Your task to perform on an android device: Go to Yahoo.com Image 0: 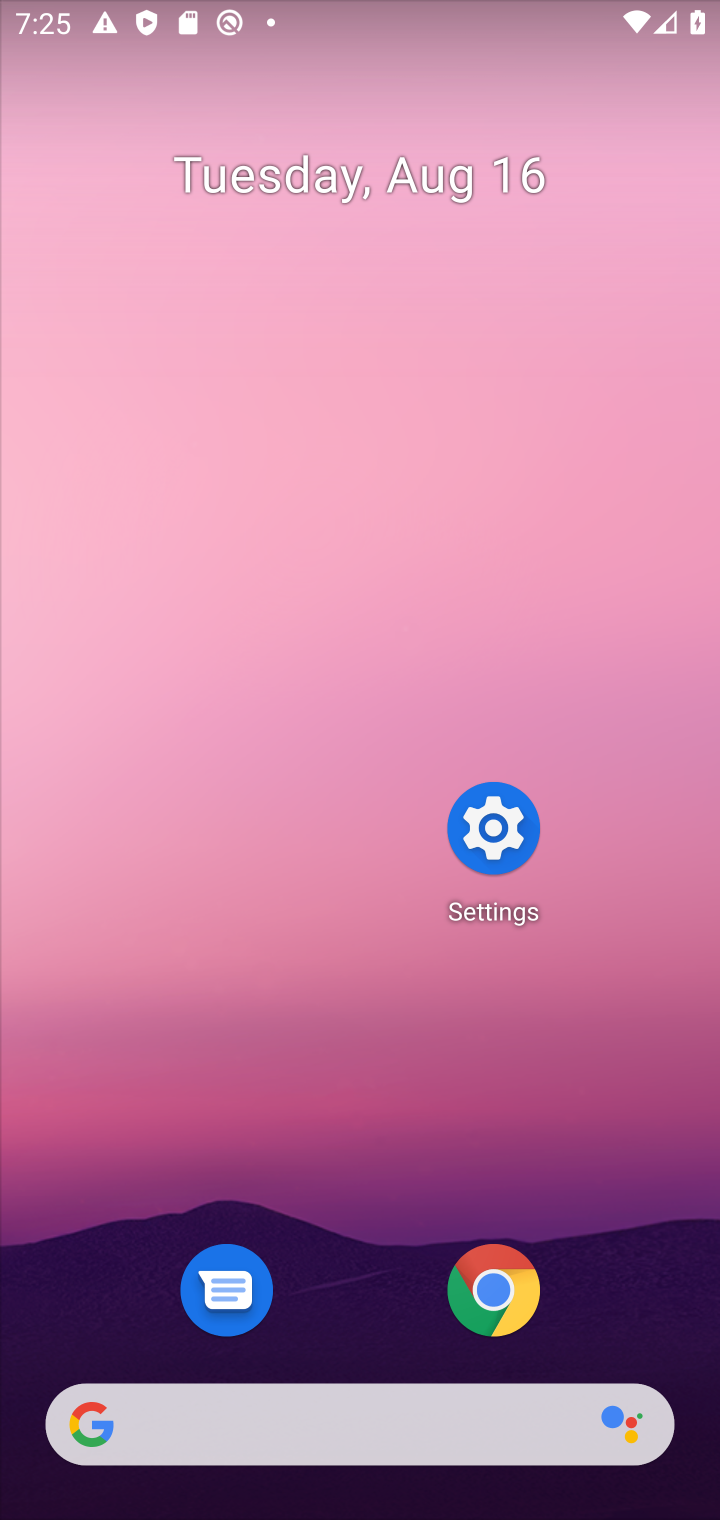
Step 0: click (486, 1308)
Your task to perform on an android device: Go to Yahoo.com Image 1: 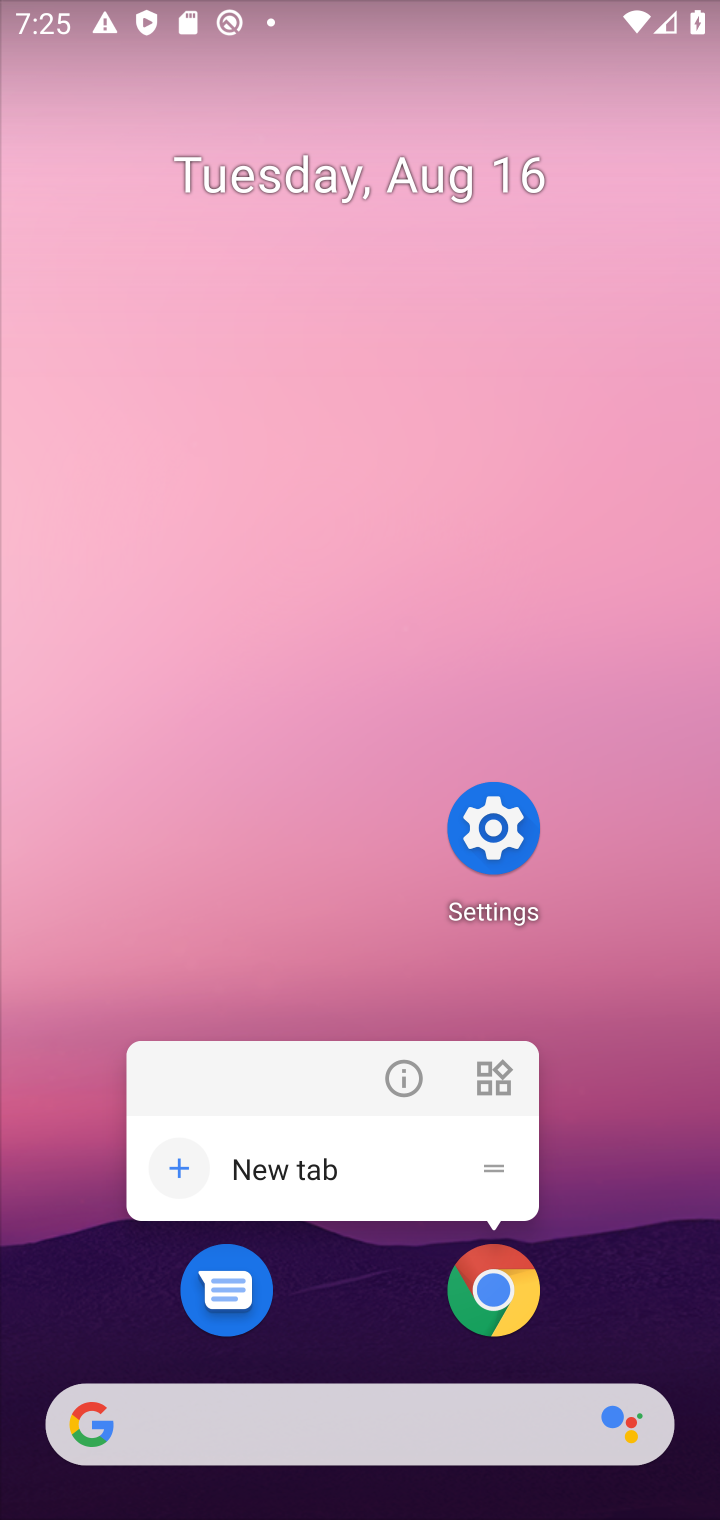
Step 1: click (488, 1297)
Your task to perform on an android device: Go to Yahoo.com Image 2: 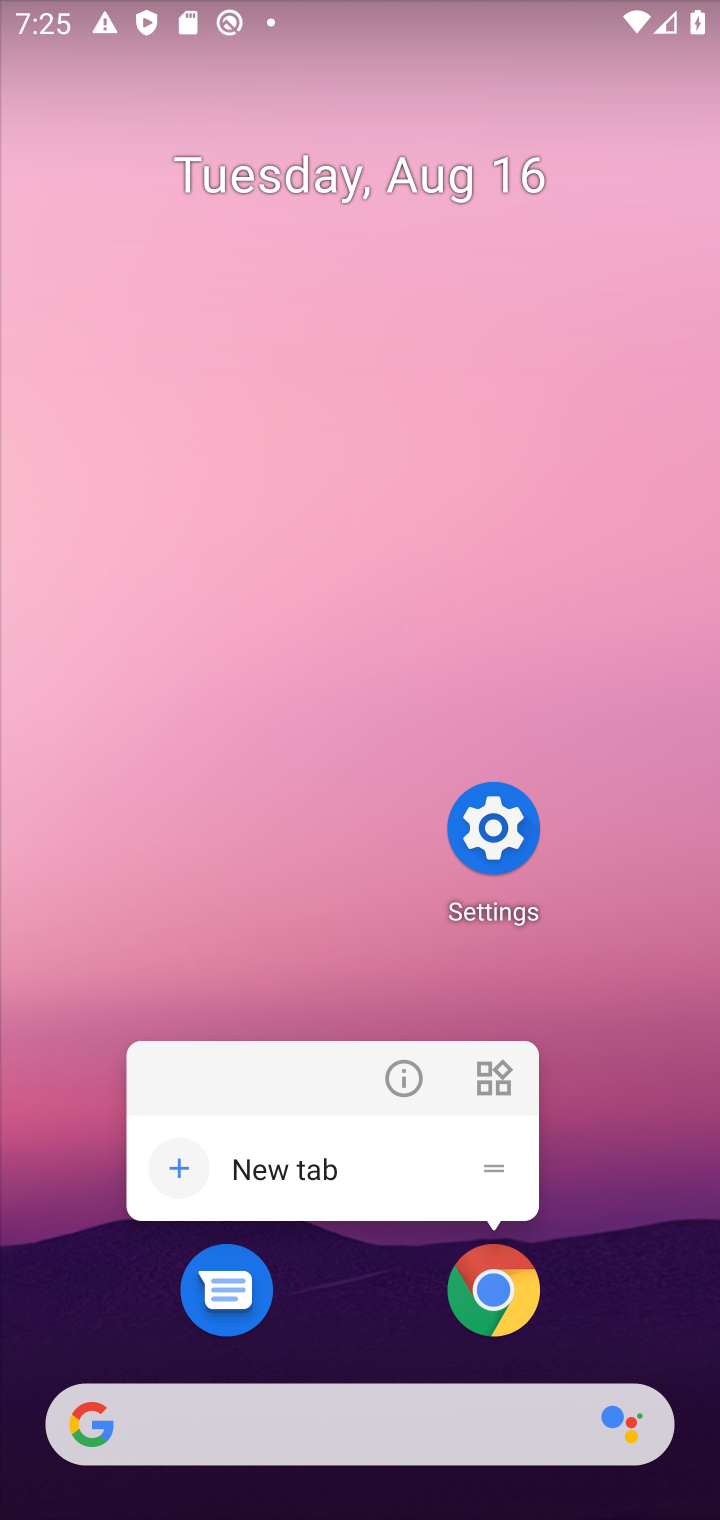
Step 2: click (497, 1284)
Your task to perform on an android device: Go to Yahoo.com Image 3: 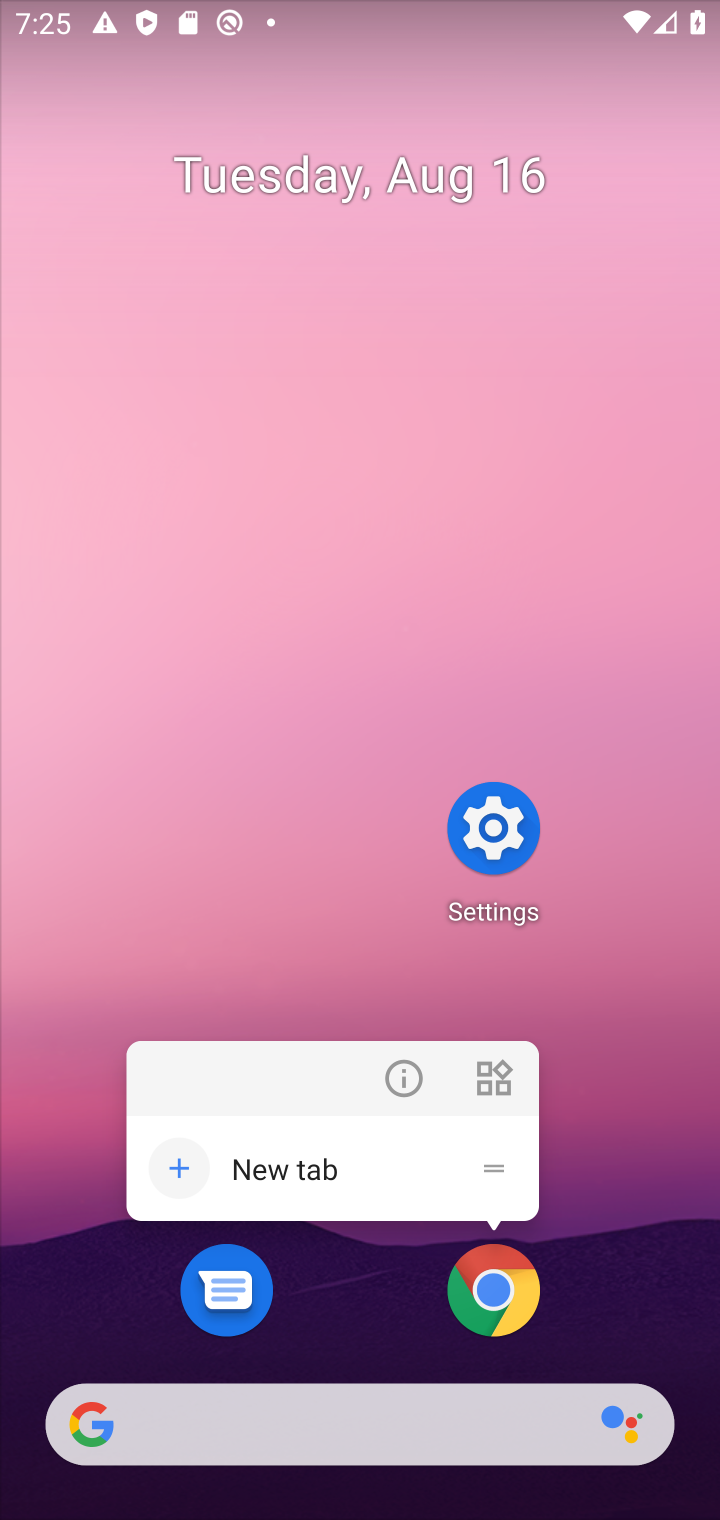
Step 3: click (479, 1312)
Your task to perform on an android device: Go to Yahoo.com Image 4: 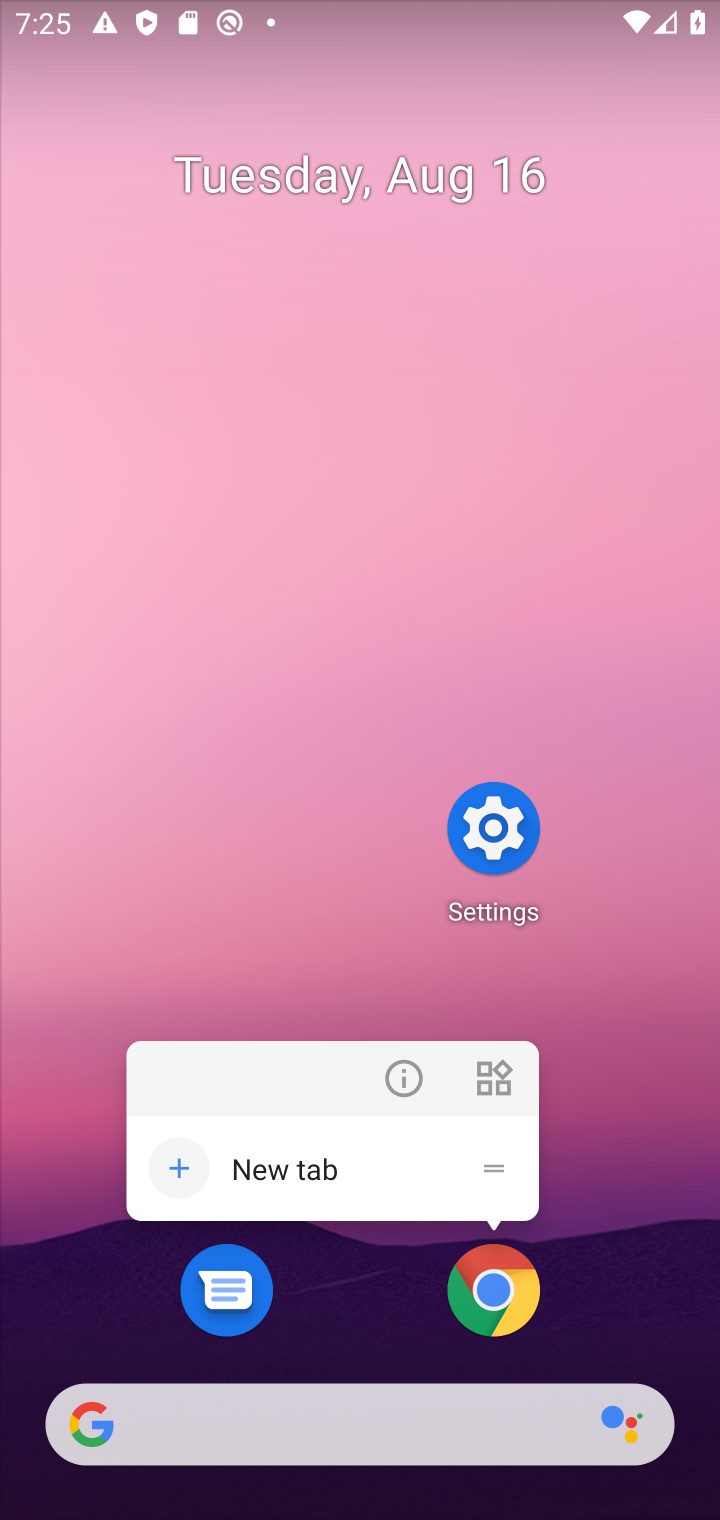
Step 4: click (507, 1301)
Your task to perform on an android device: Go to Yahoo.com Image 5: 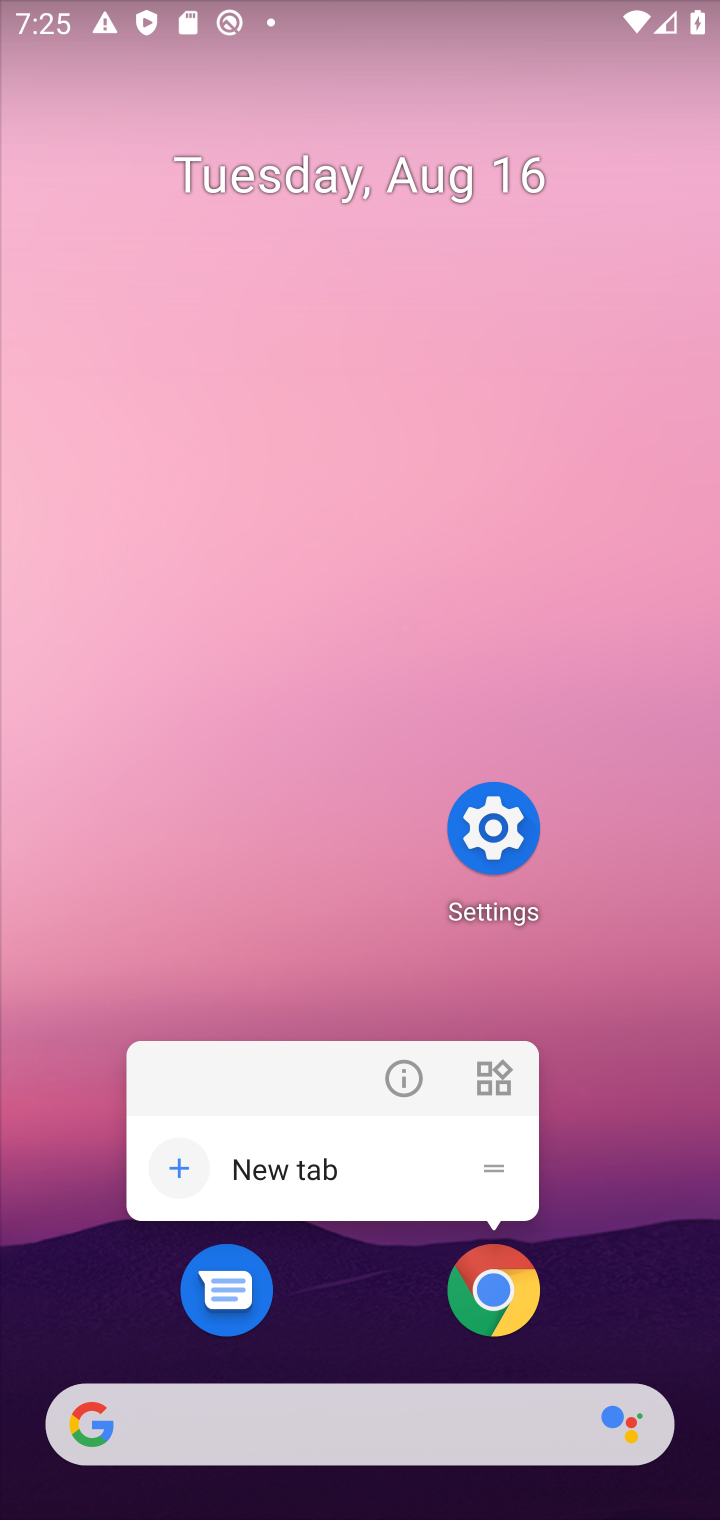
Step 5: click (496, 1293)
Your task to perform on an android device: Go to Yahoo.com Image 6: 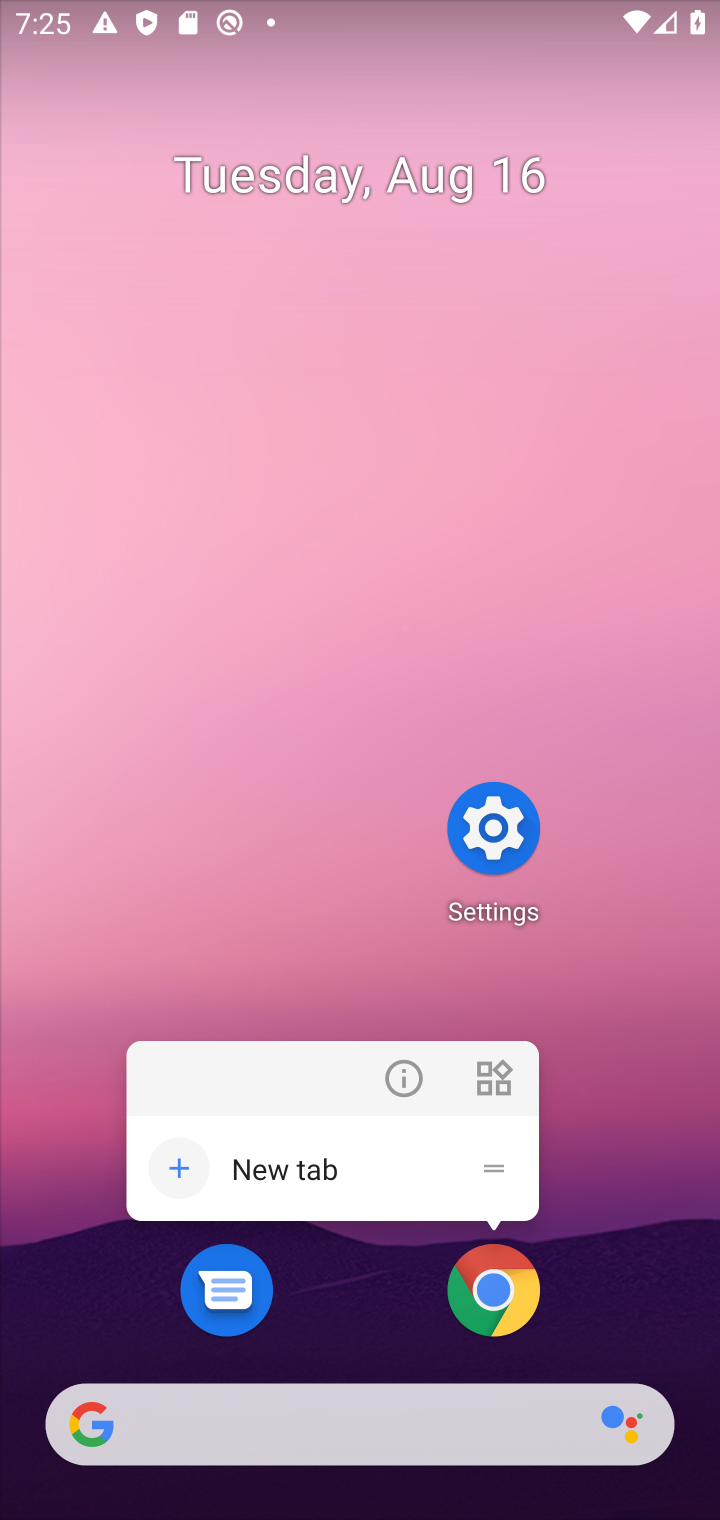
Step 6: click (488, 1293)
Your task to perform on an android device: Go to Yahoo.com Image 7: 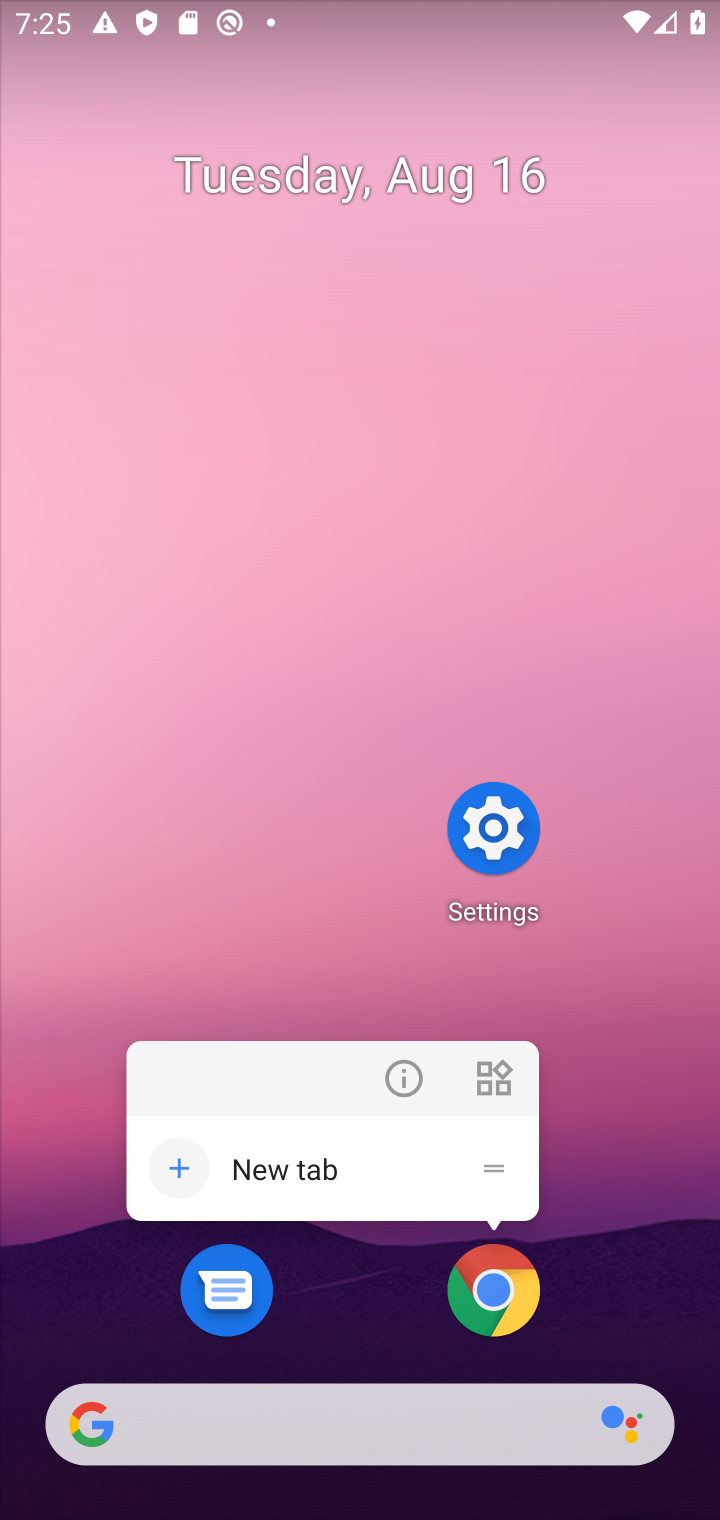
Step 7: click (488, 1293)
Your task to perform on an android device: Go to Yahoo.com Image 8: 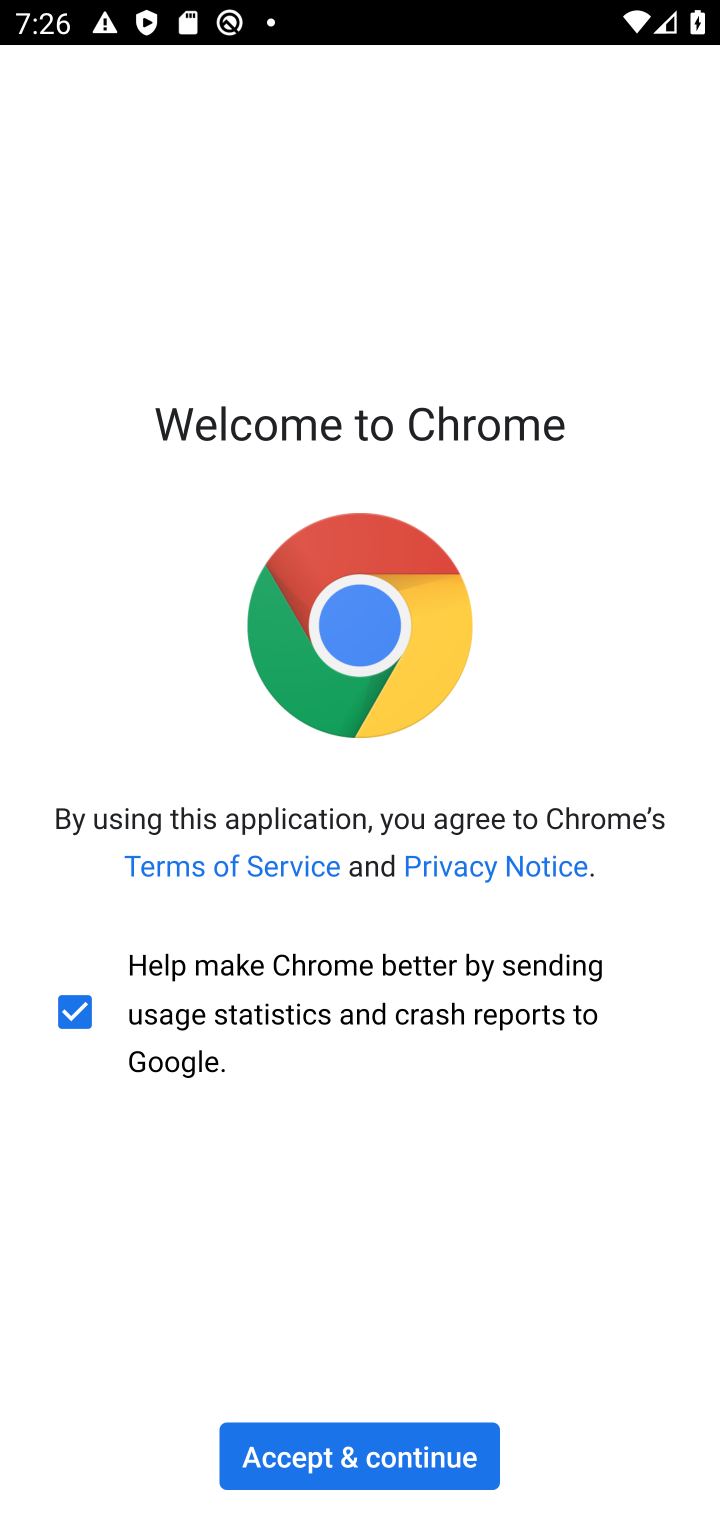
Step 8: click (394, 1459)
Your task to perform on an android device: Go to Yahoo.com Image 9: 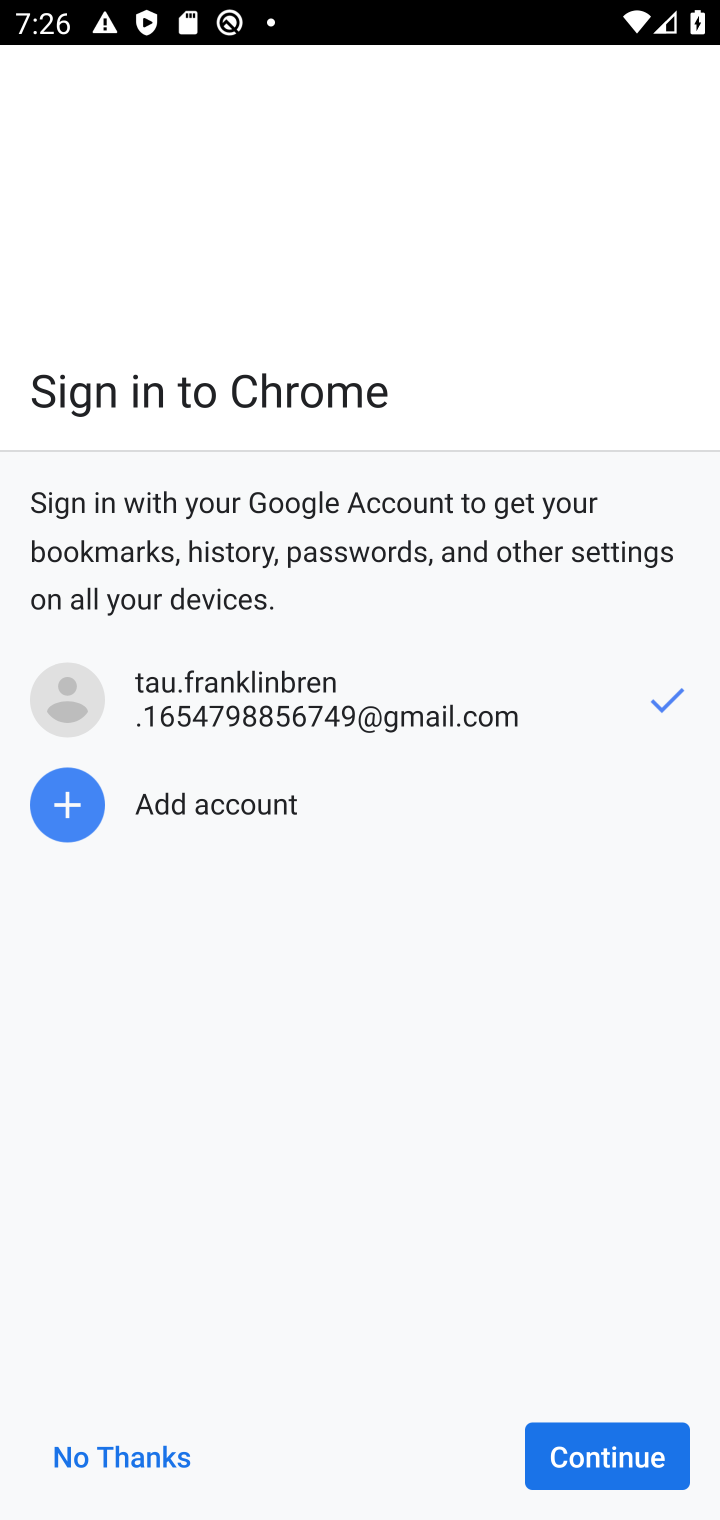
Step 9: click (621, 1466)
Your task to perform on an android device: Go to Yahoo.com Image 10: 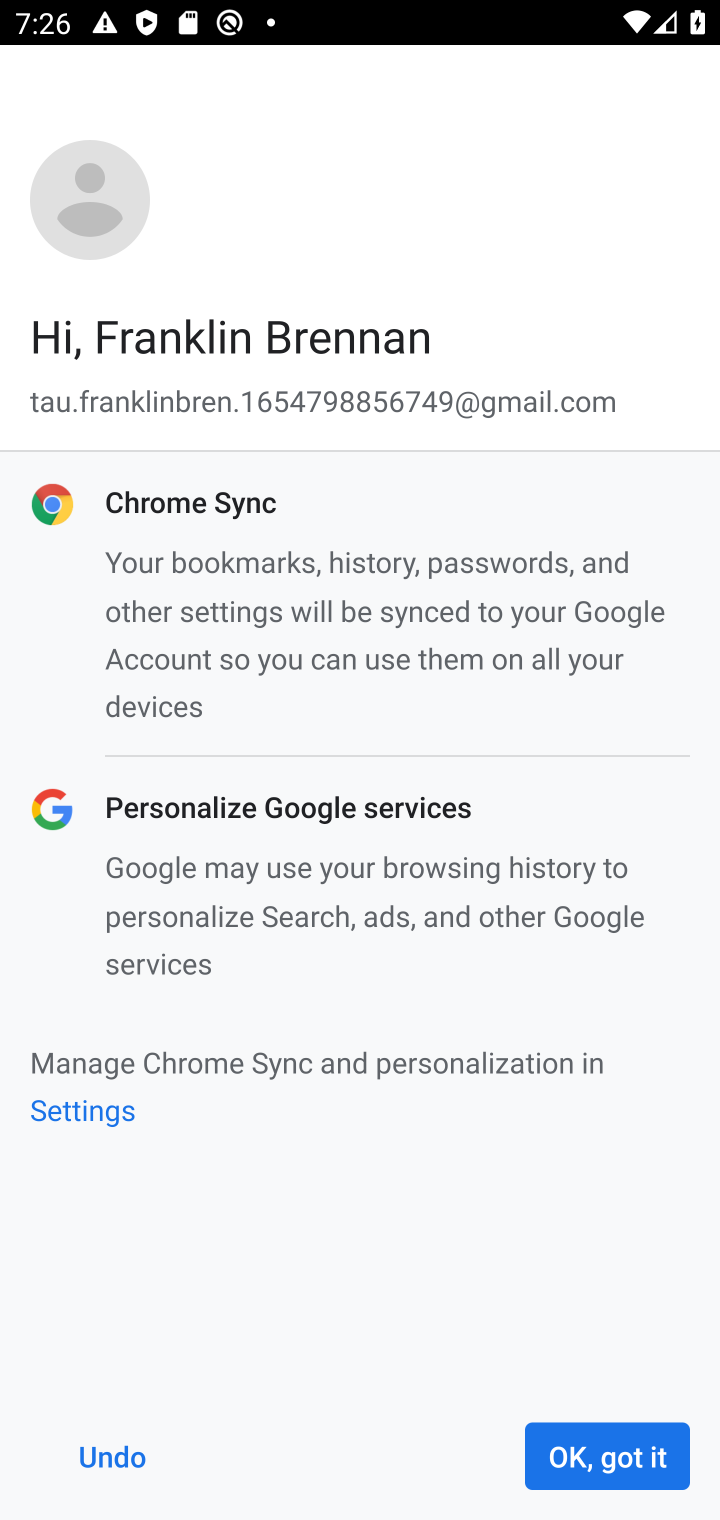
Step 10: click (621, 1466)
Your task to perform on an android device: Go to Yahoo.com Image 11: 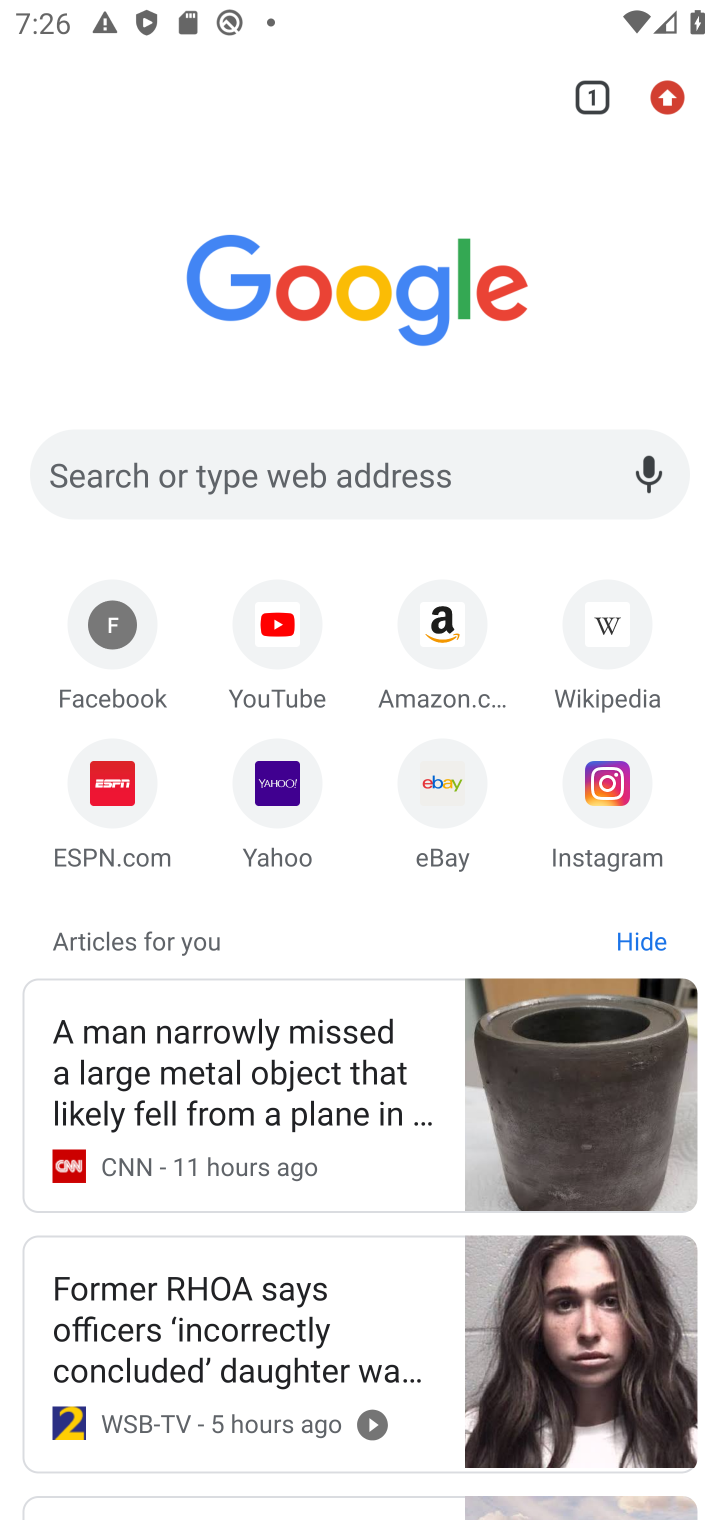
Step 11: click (274, 794)
Your task to perform on an android device: Go to Yahoo.com Image 12: 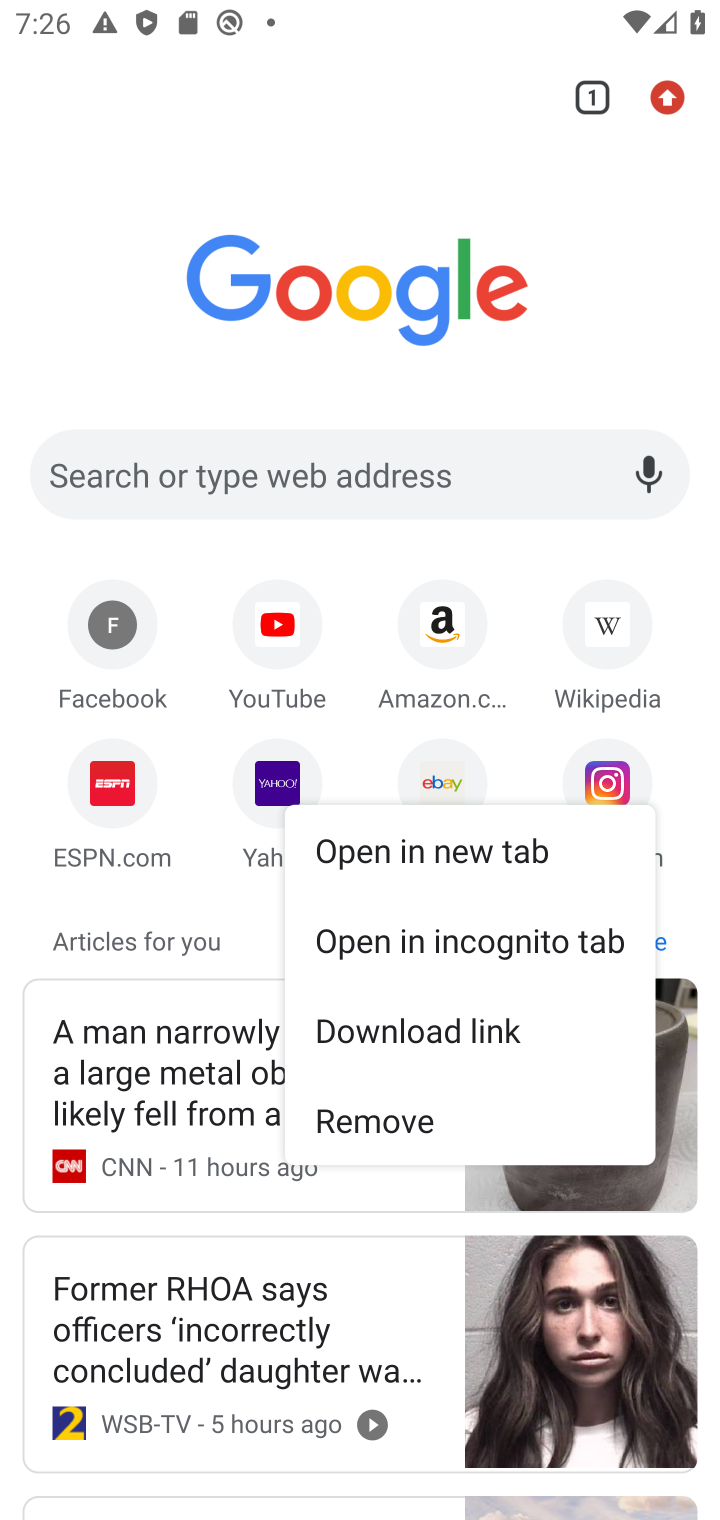
Step 12: click (272, 775)
Your task to perform on an android device: Go to Yahoo.com Image 13: 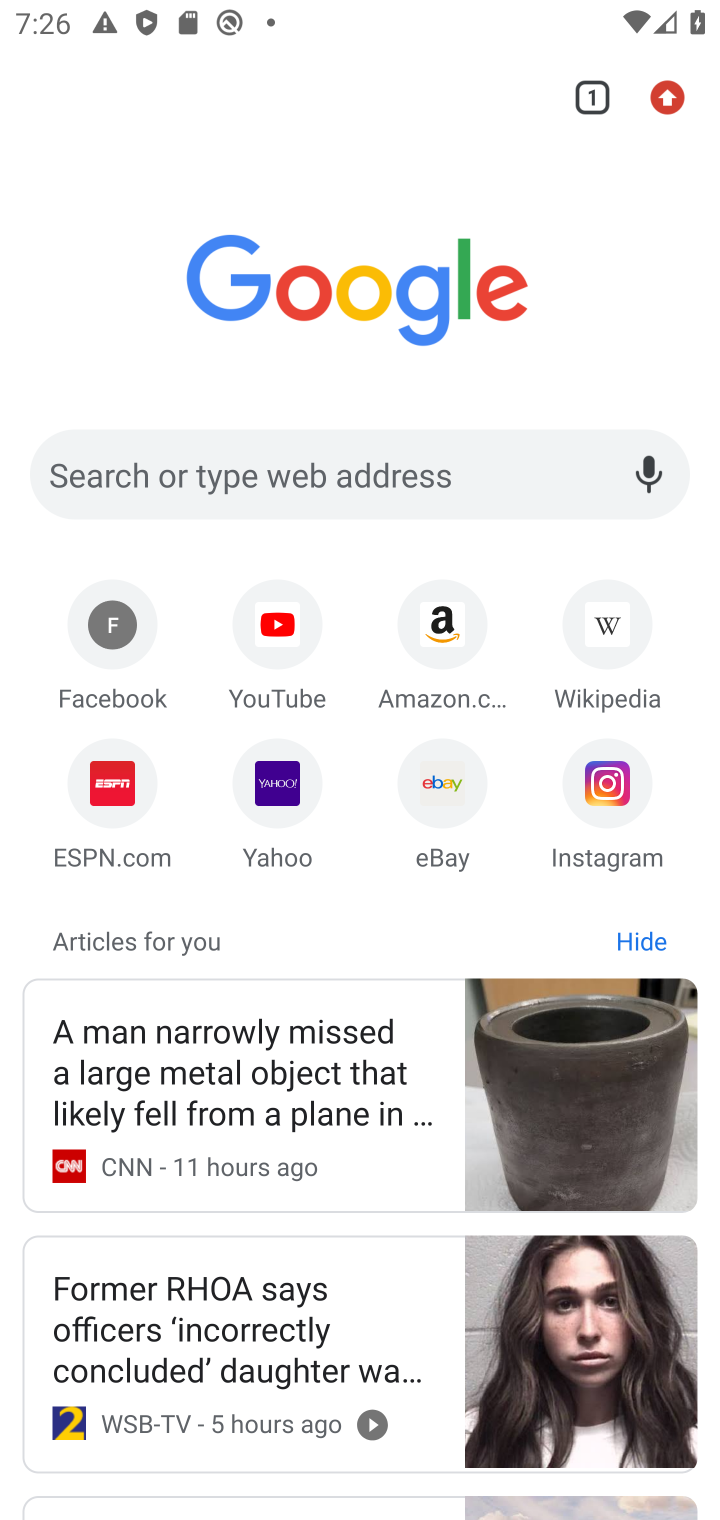
Step 13: click (270, 787)
Your task to perform on an android device: Go to Yahoo.com Image 14: 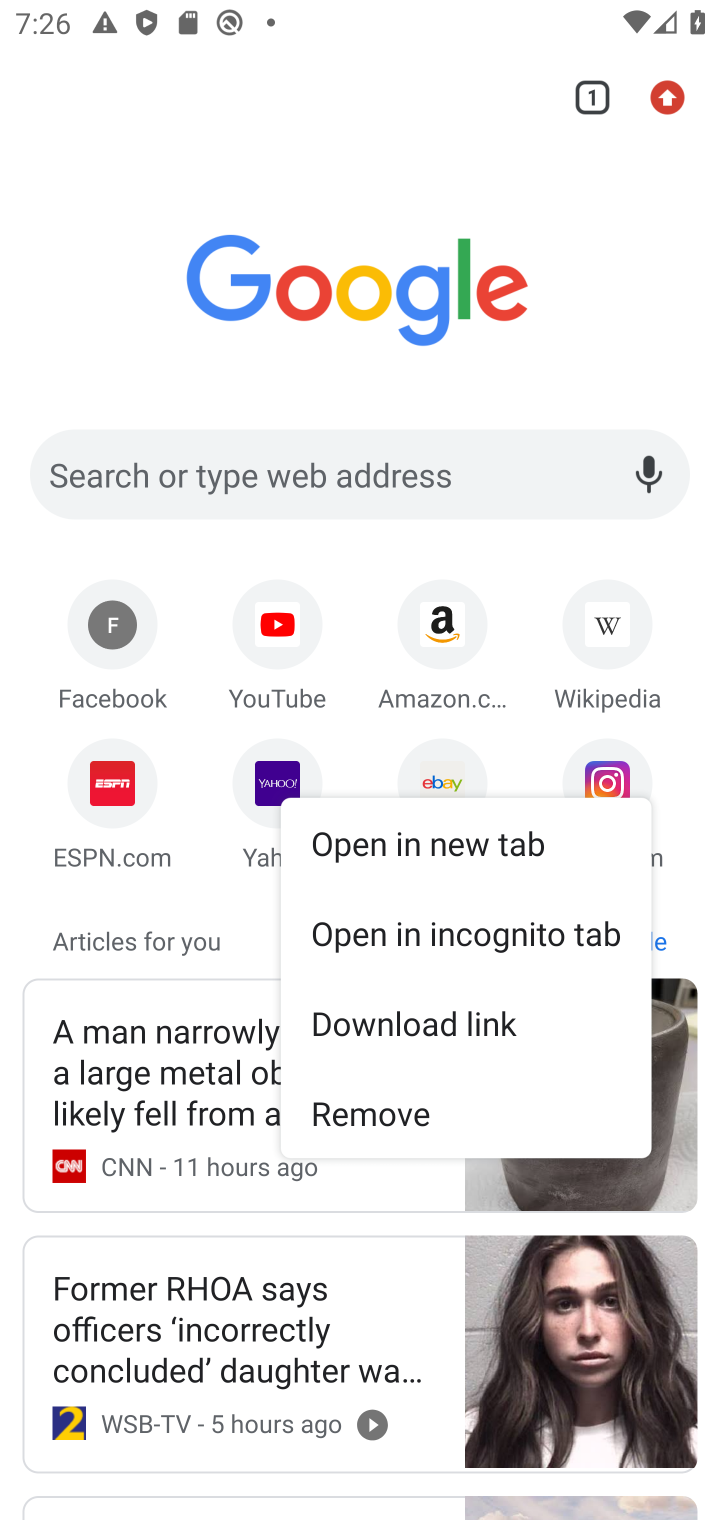
Step 14: click (276, 783)
Your task to perform on an android device: Go to Yahoo.com Image 15: 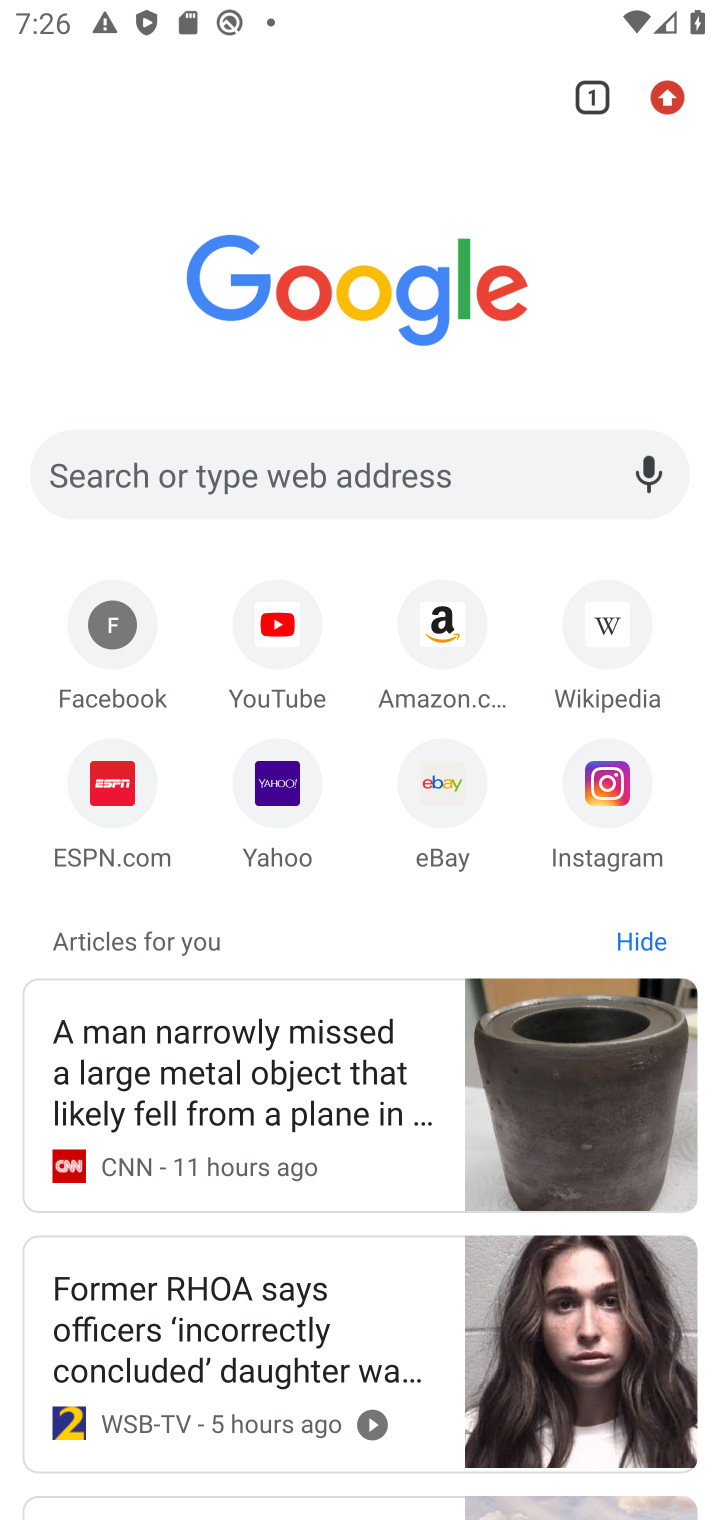
Step 15: click (276, 783)
Your task to perform on an android device: Go to Yahoo.com Image 16: 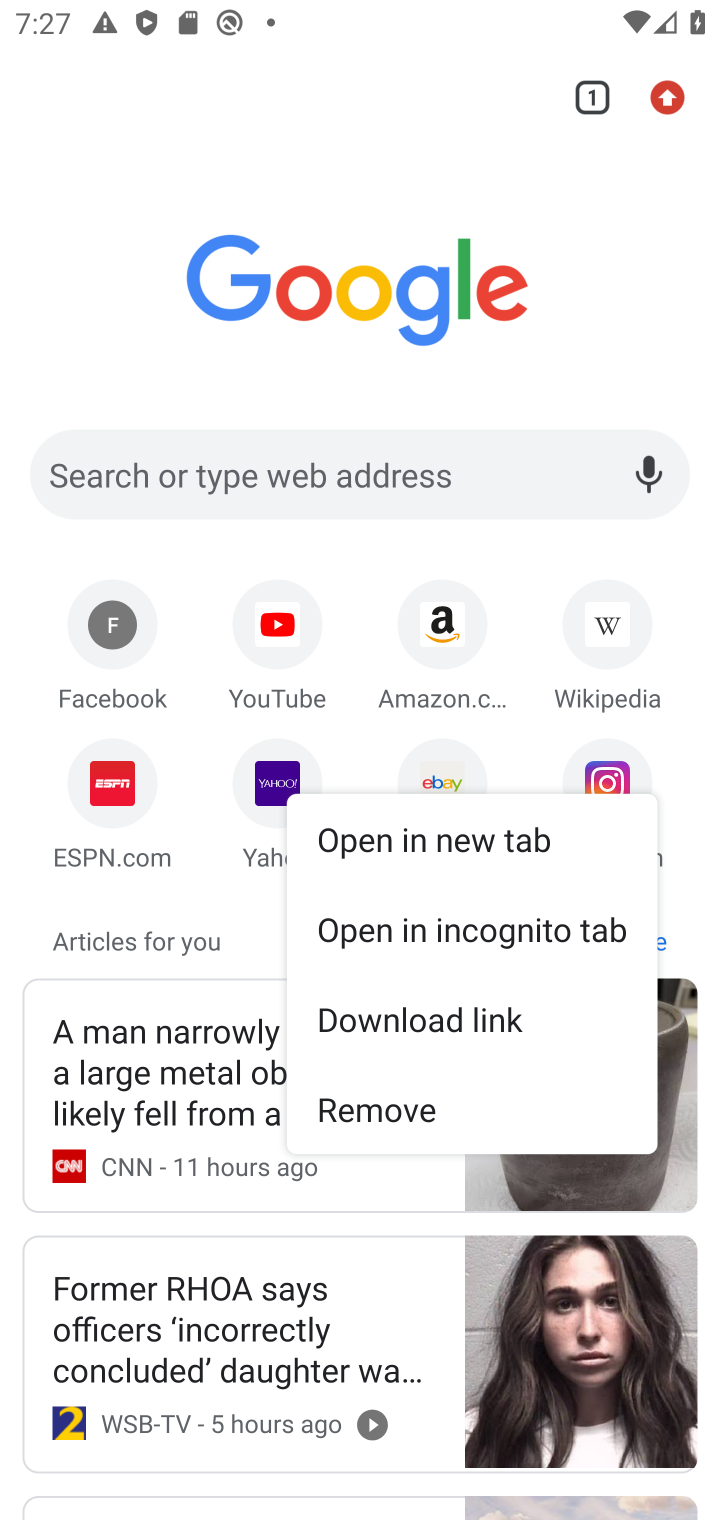
Step 16: click (265, 785)
Your task to perform on an android device: Go to Yahoo.com Image 17: 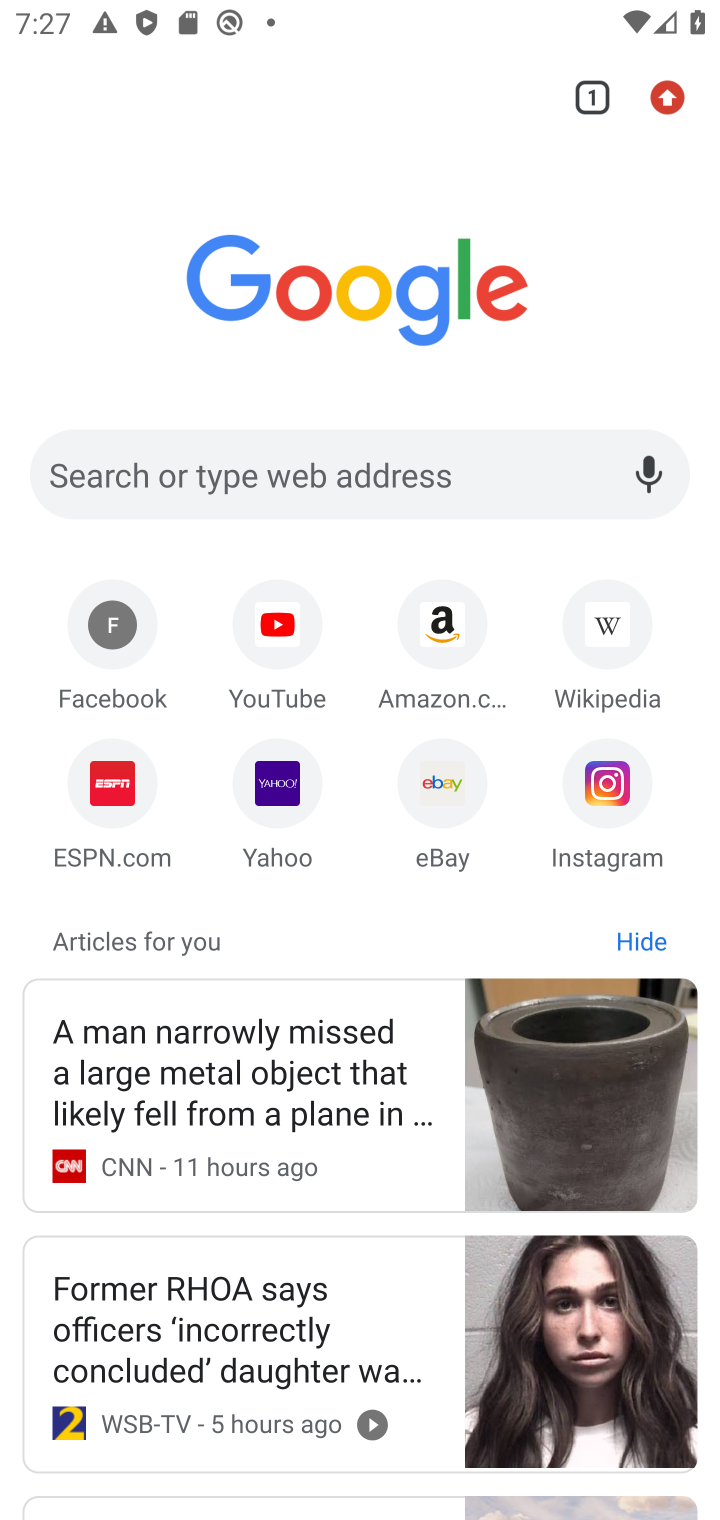
Step 17: click (265, 785)
Your task to perform on an android device: Go to Yahoo.com Image 18: 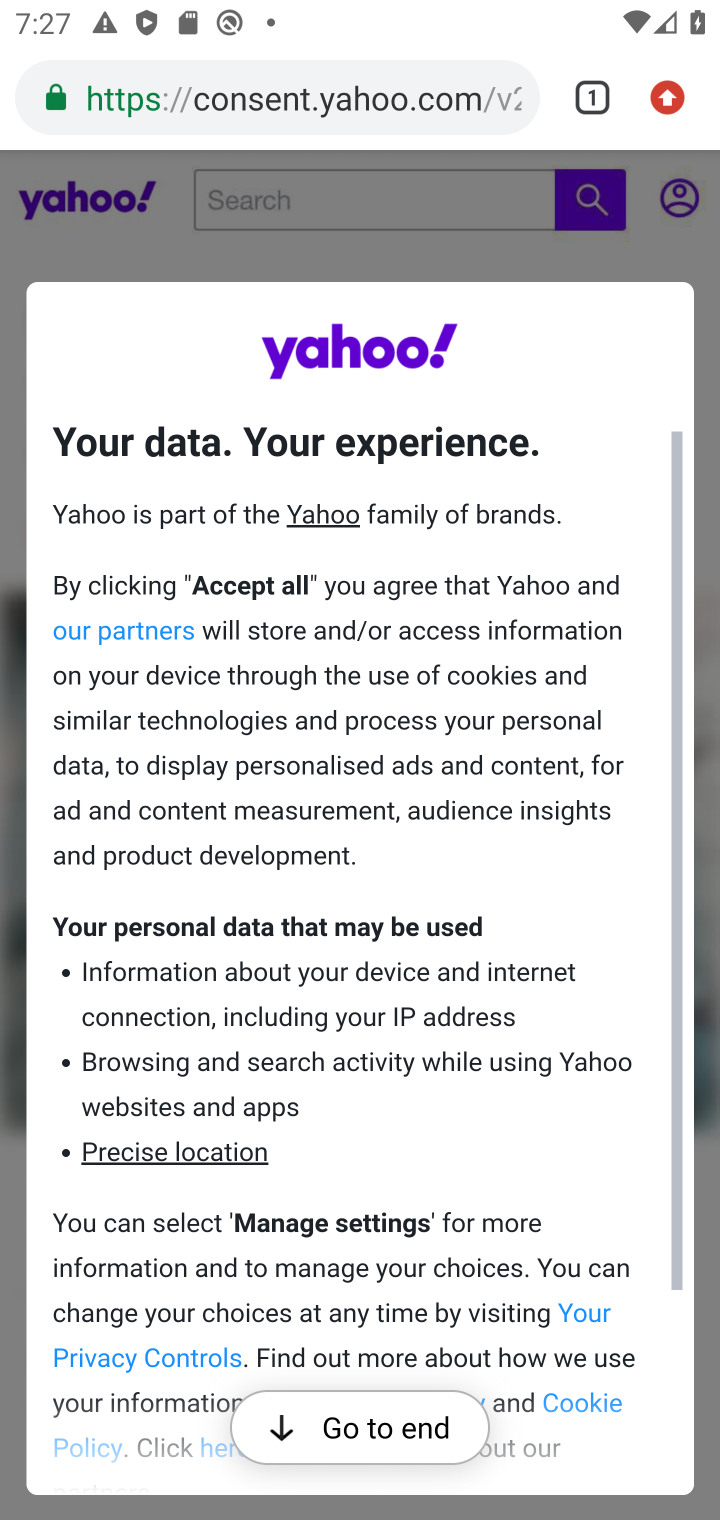
Step 18: click (377, 1424)
Your task to perform on an android device: Go to Yahoo.com Image 19: 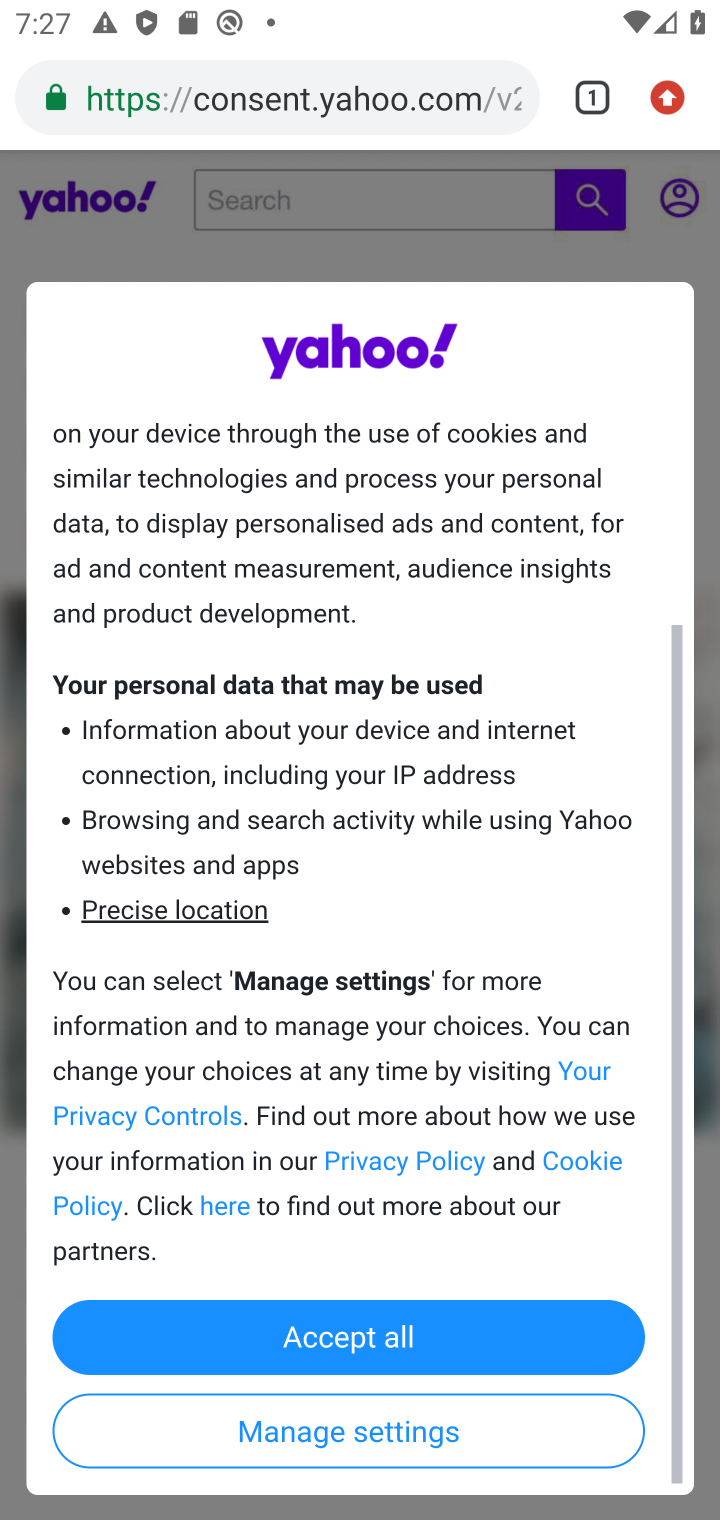
Step 19: click (353, 1334)
Your task to perform on an android device: Go to Yahoo.com Image 20: 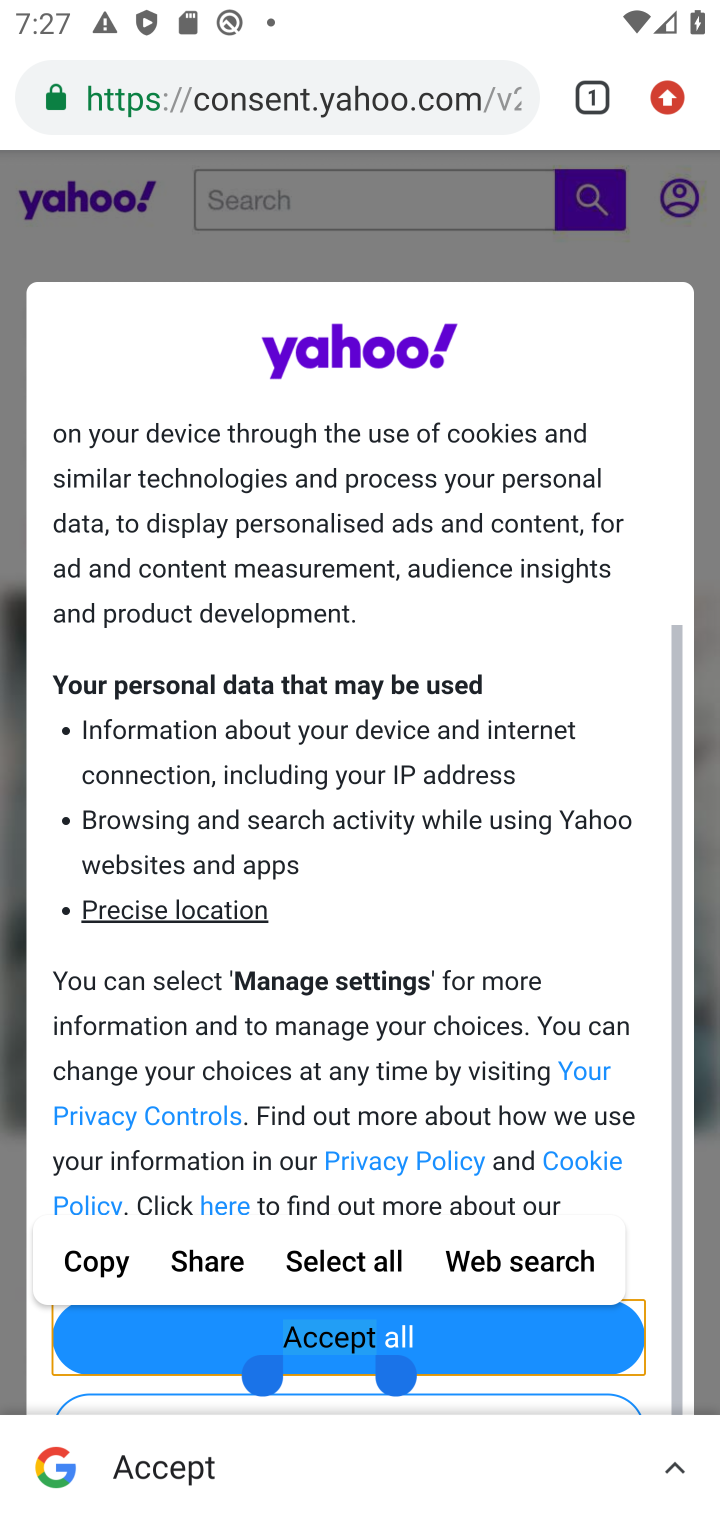
Step 20: click (339, 1348)
Your task to perform on an android device: Go to Yahoo.com Image 21: 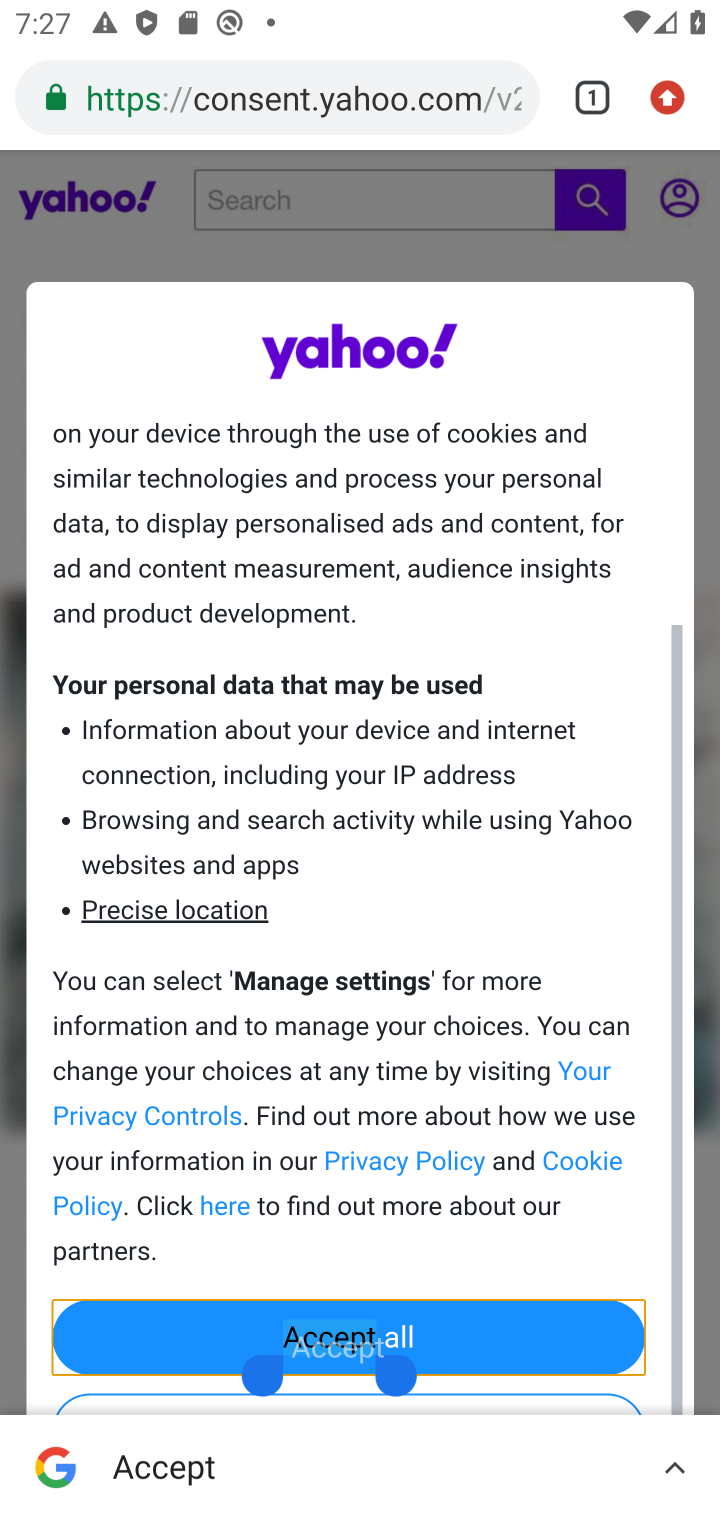
Step 21: click (424, 1332)
Your task to perform on an android device: Go to Yahoo.com Image 22: 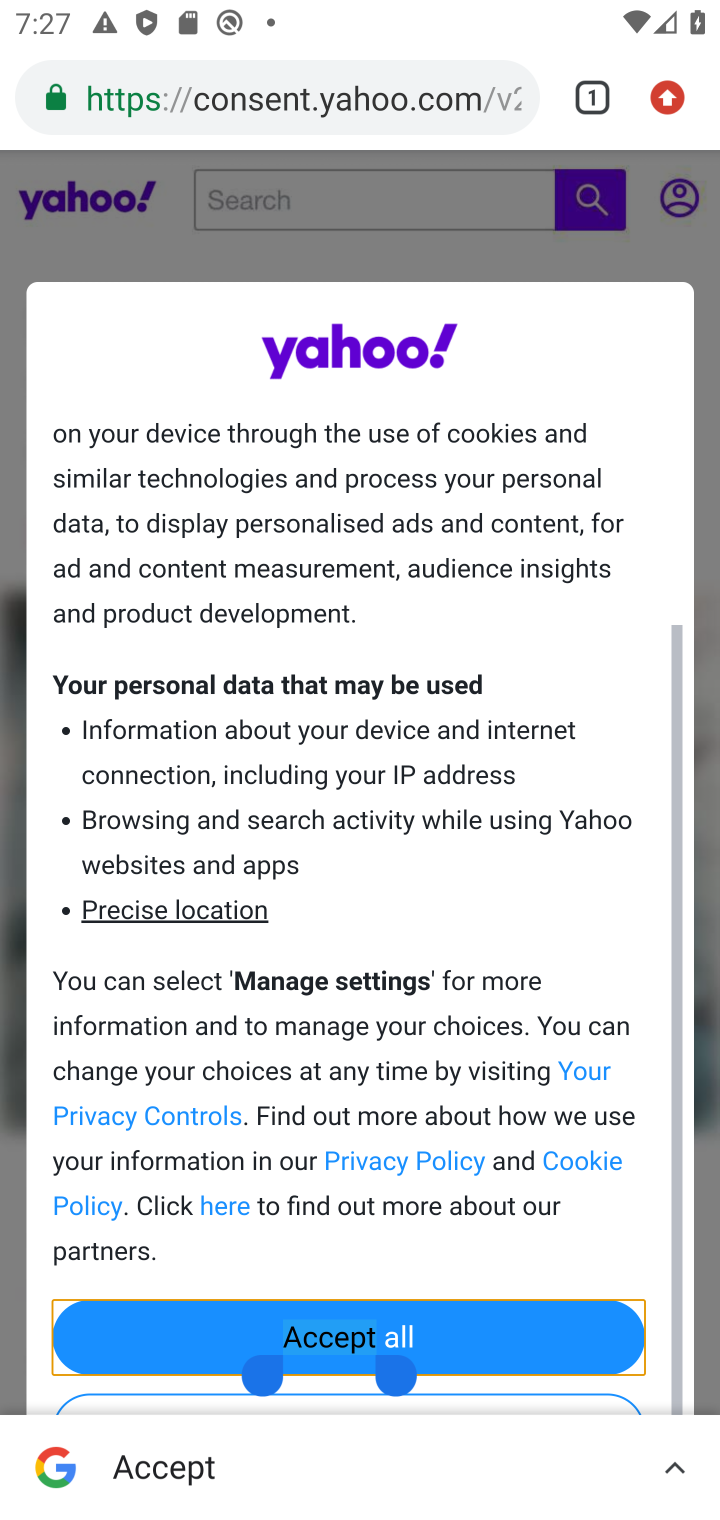
Step 22: click (447, 1341)
Your task to perform on an android device: Go to Yahoo.com Image 23: 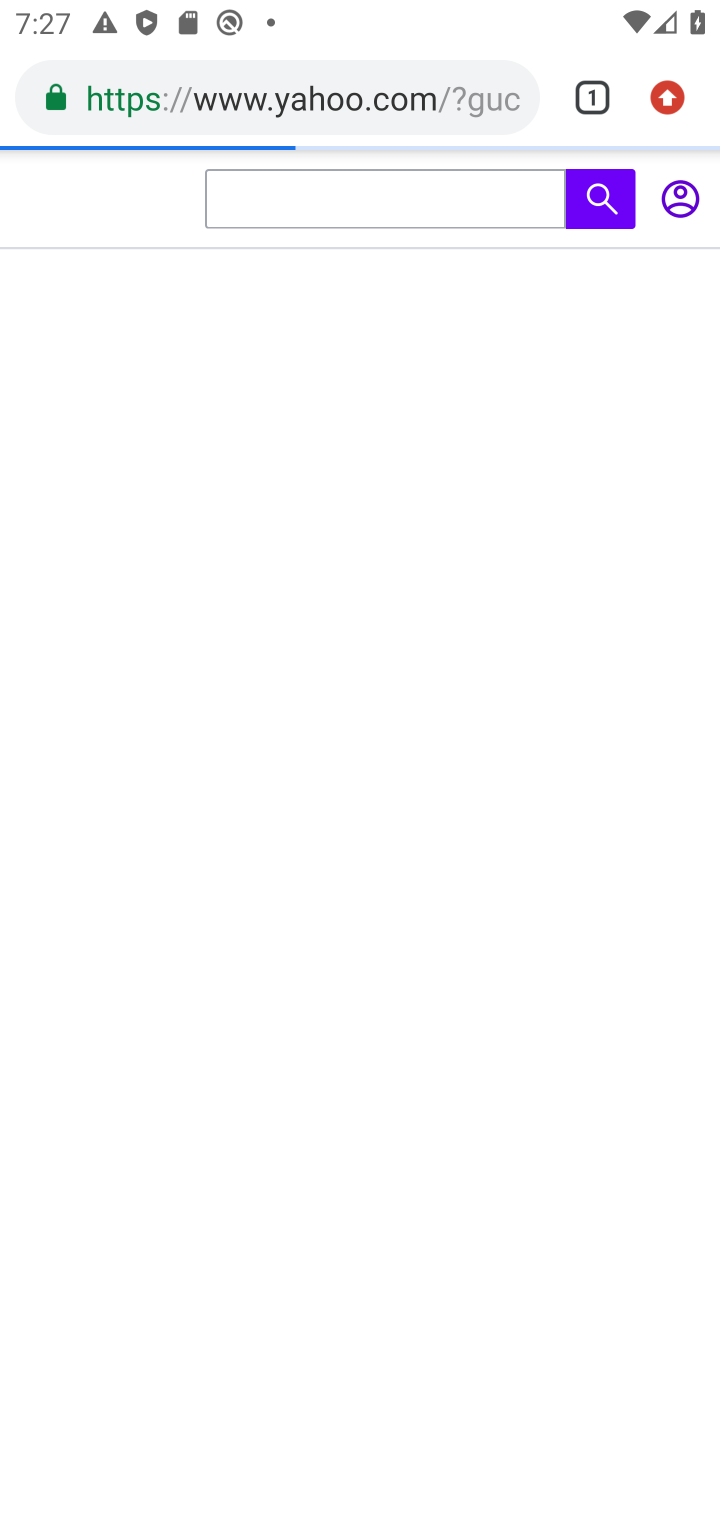
Step 23: click (388, 1339)
Your task to perform on an android device: Go to Yahoo.com Image 24: 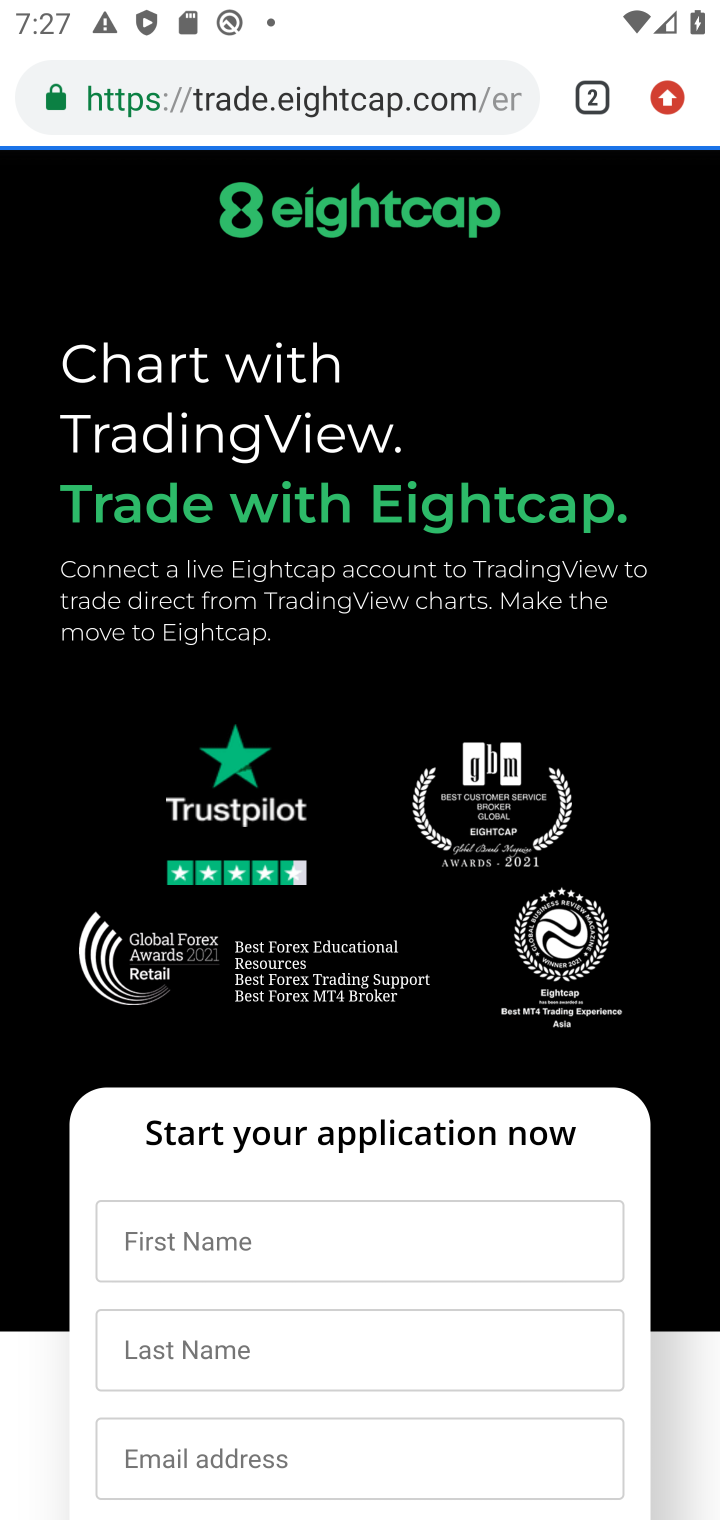
Step 24: task complete